Your task to perform on an android device: open app "Google News" Image 0: 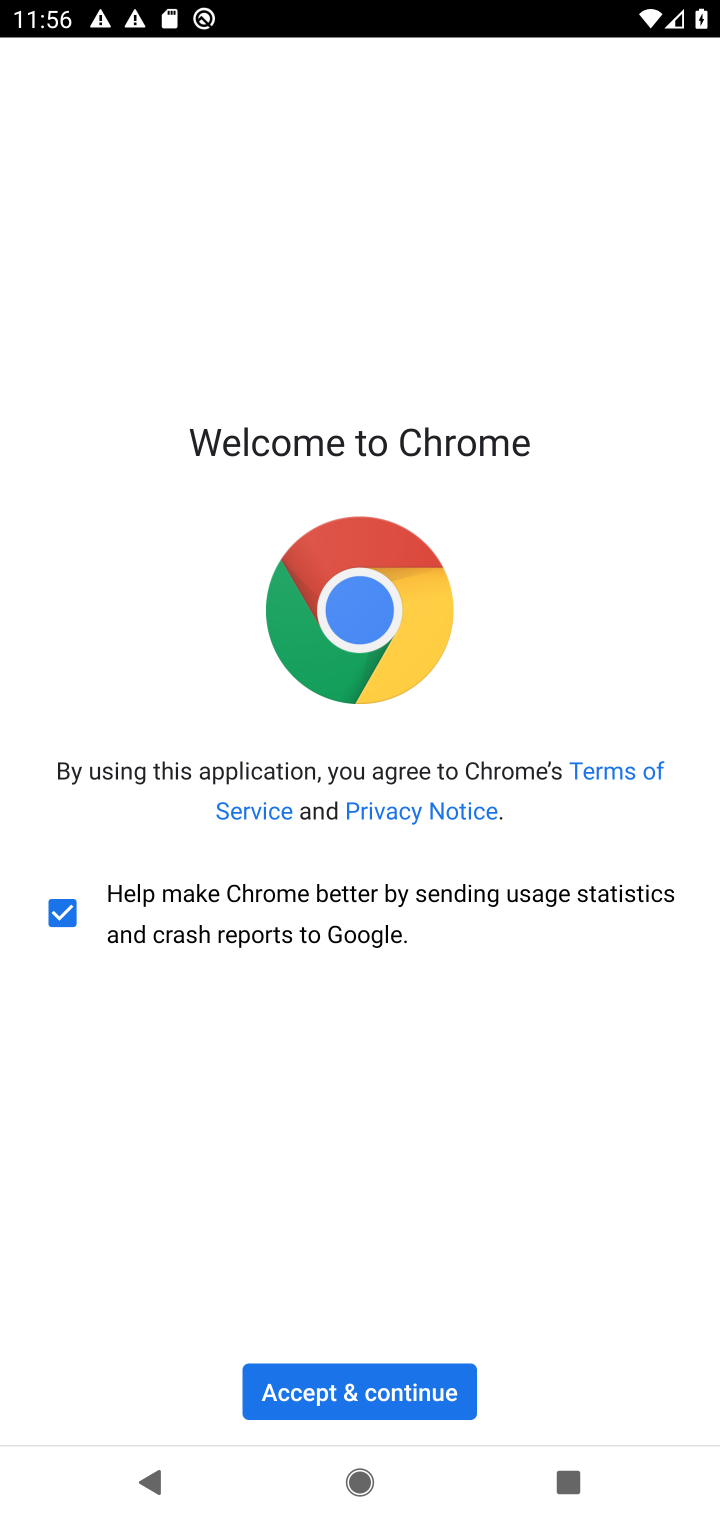
Step 0: press home button
Your task to perform on an android device: open app "Google News" Image 1: 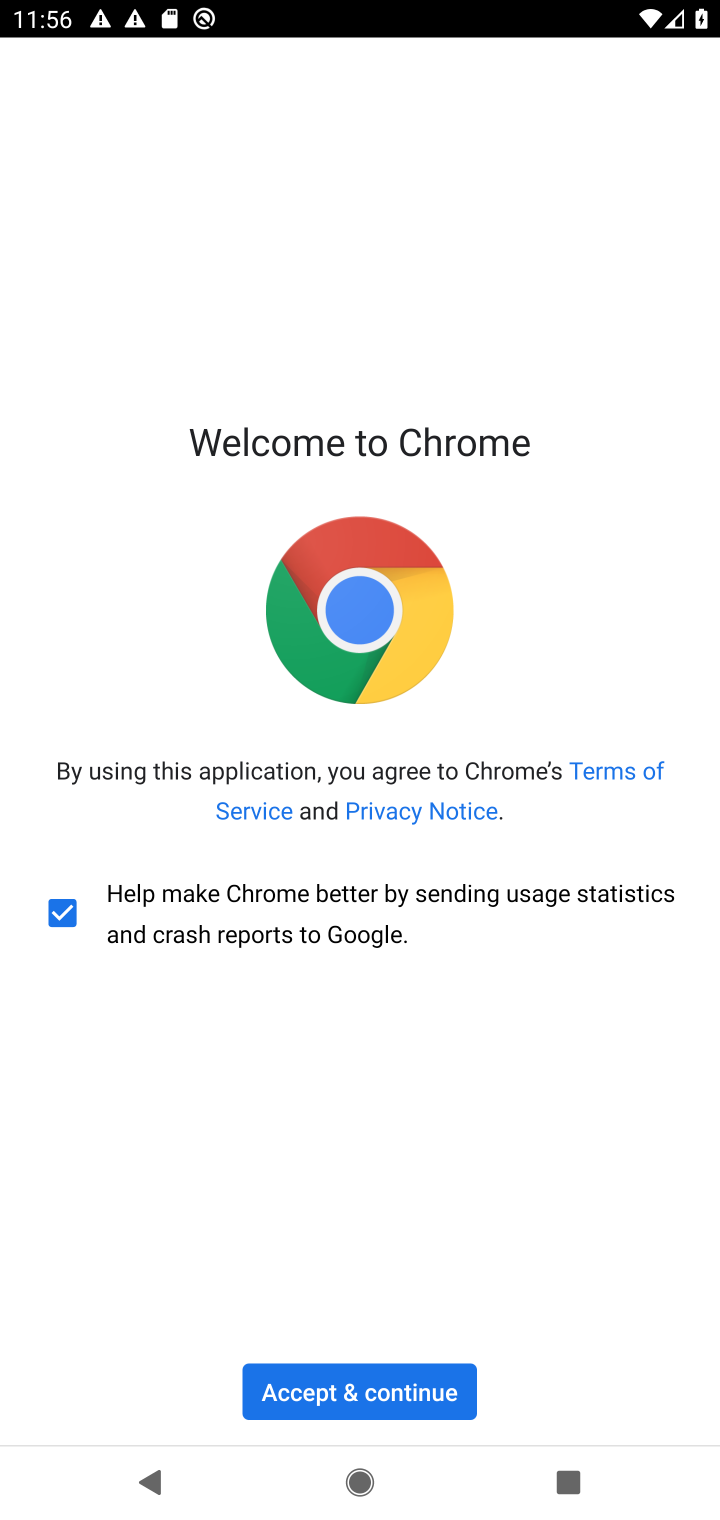
Step 1: press home button
Your task to perform on an android device: open app "Google News" Image 2: 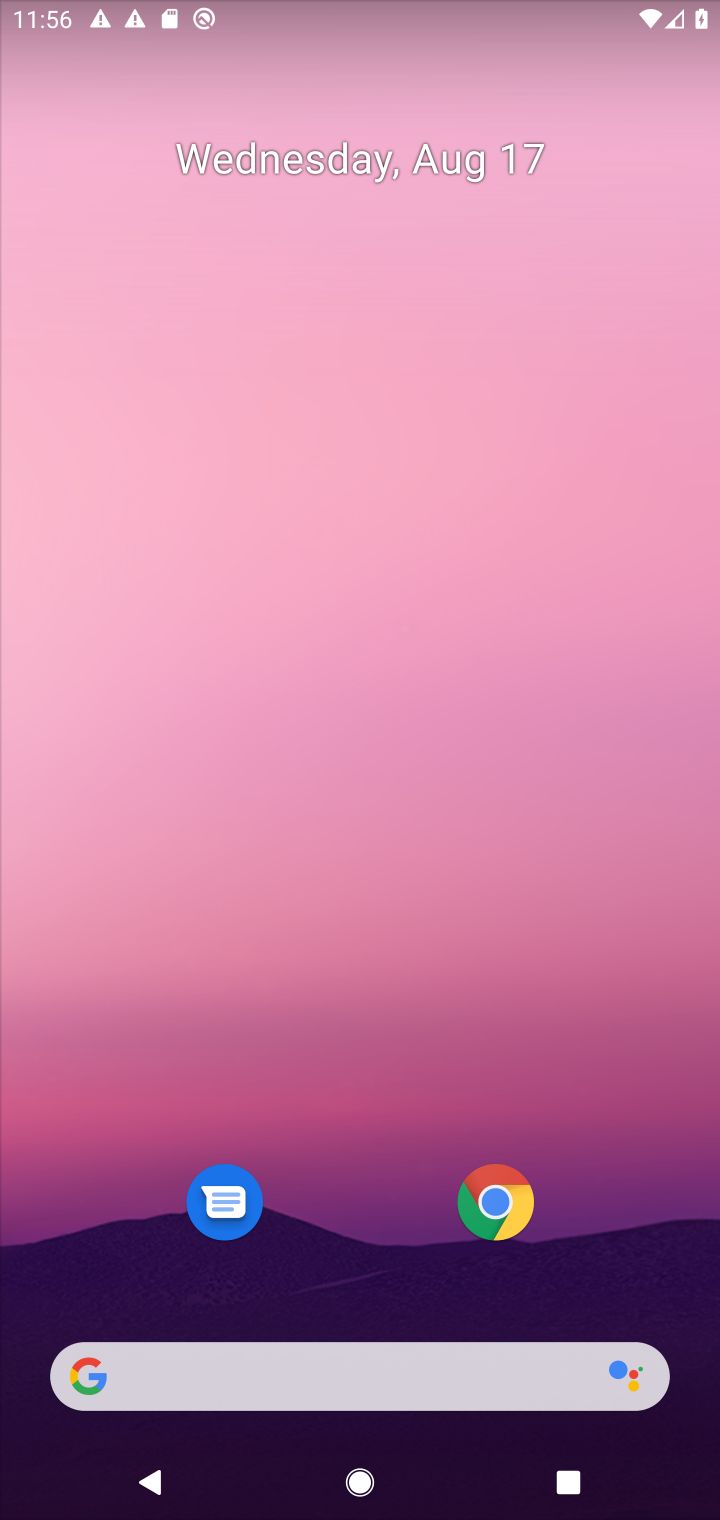
Step 2: drag from (375, 1242) to (107, 1514)
Your task to perform on an android device: open app "Google News" Image 3: 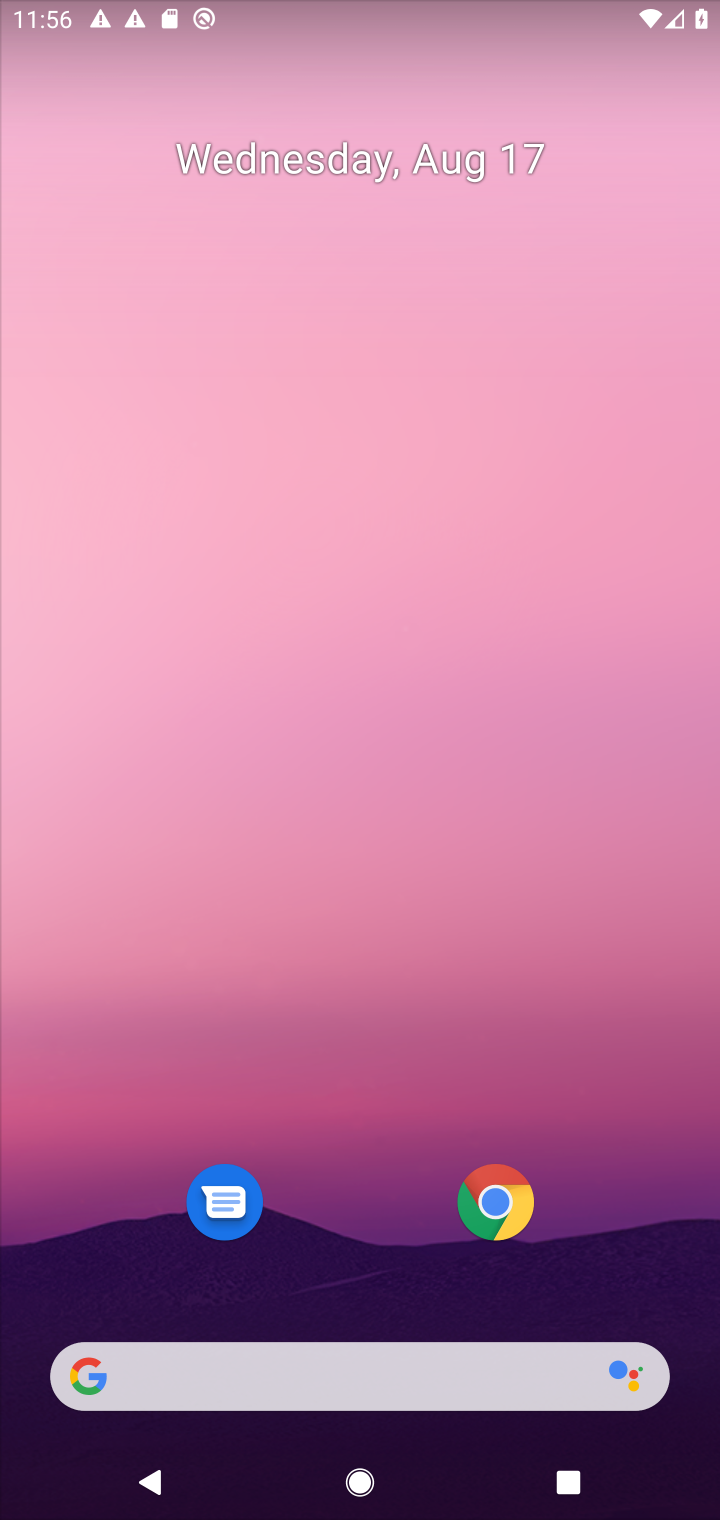
Step 3: drag from (403, 1245) to (182, 33)
Your task to perform on an android device: open app "Google News" Image 4: 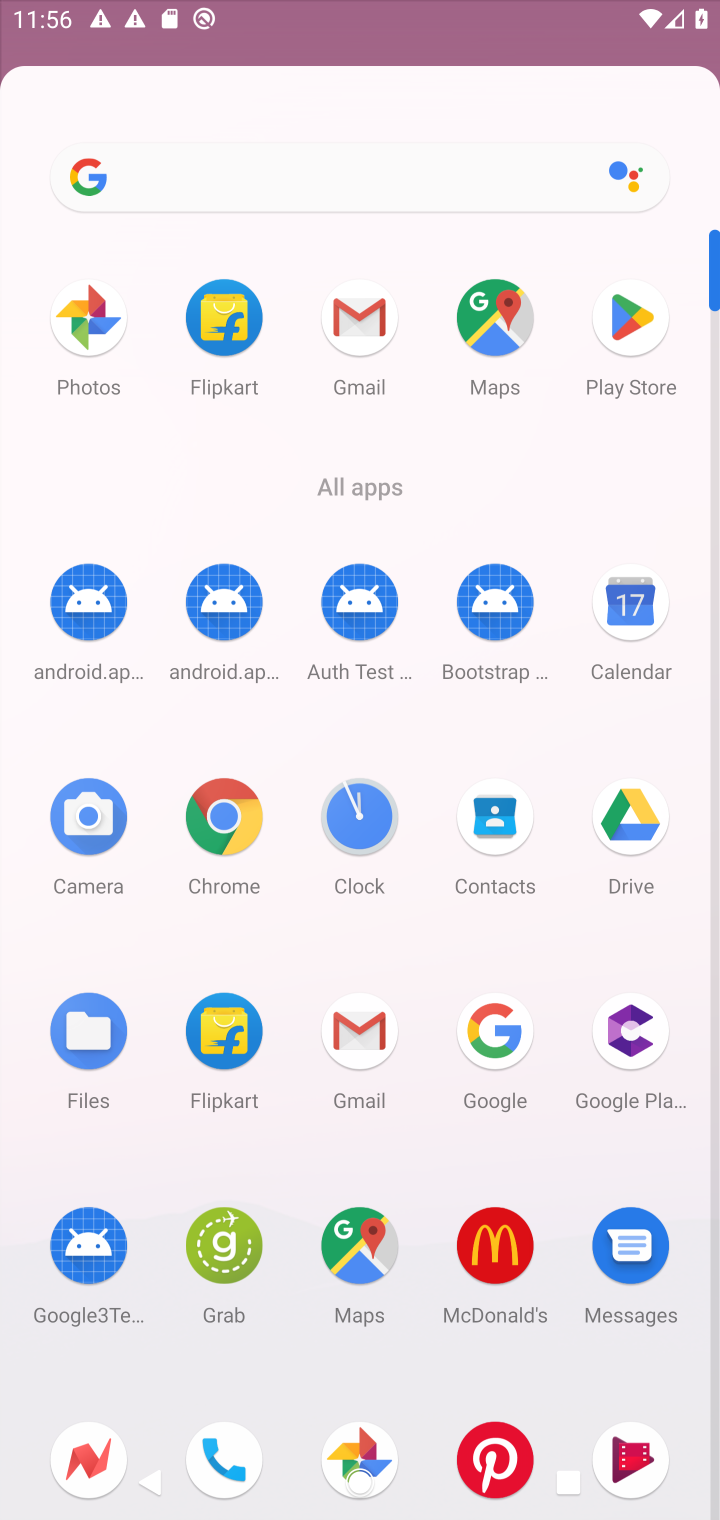
Step 4: click (568, 280)
Your task to perform on an android device: open app "Google News" Image 5: 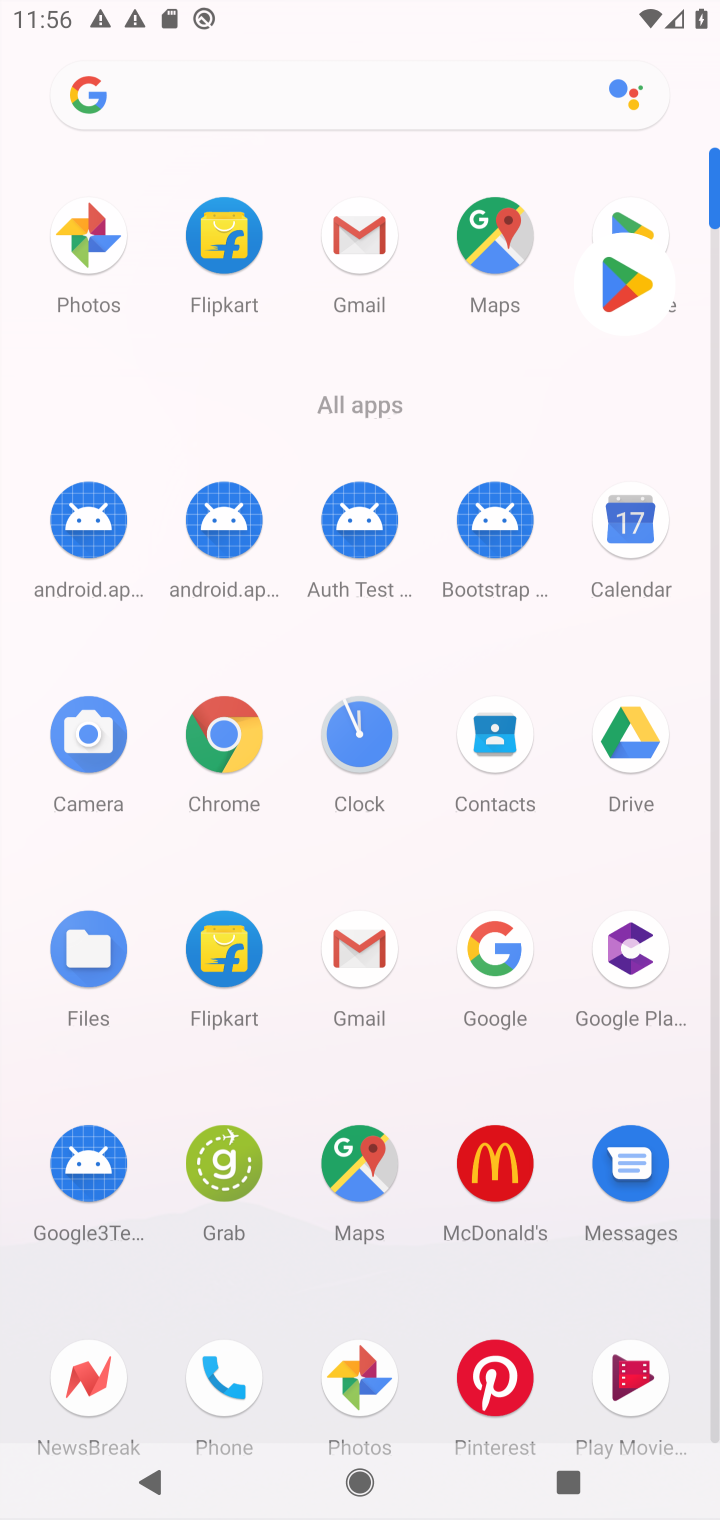
Step 5: click (586, 274)
Your task to perform on an android device: open app "Google News" Image 6: 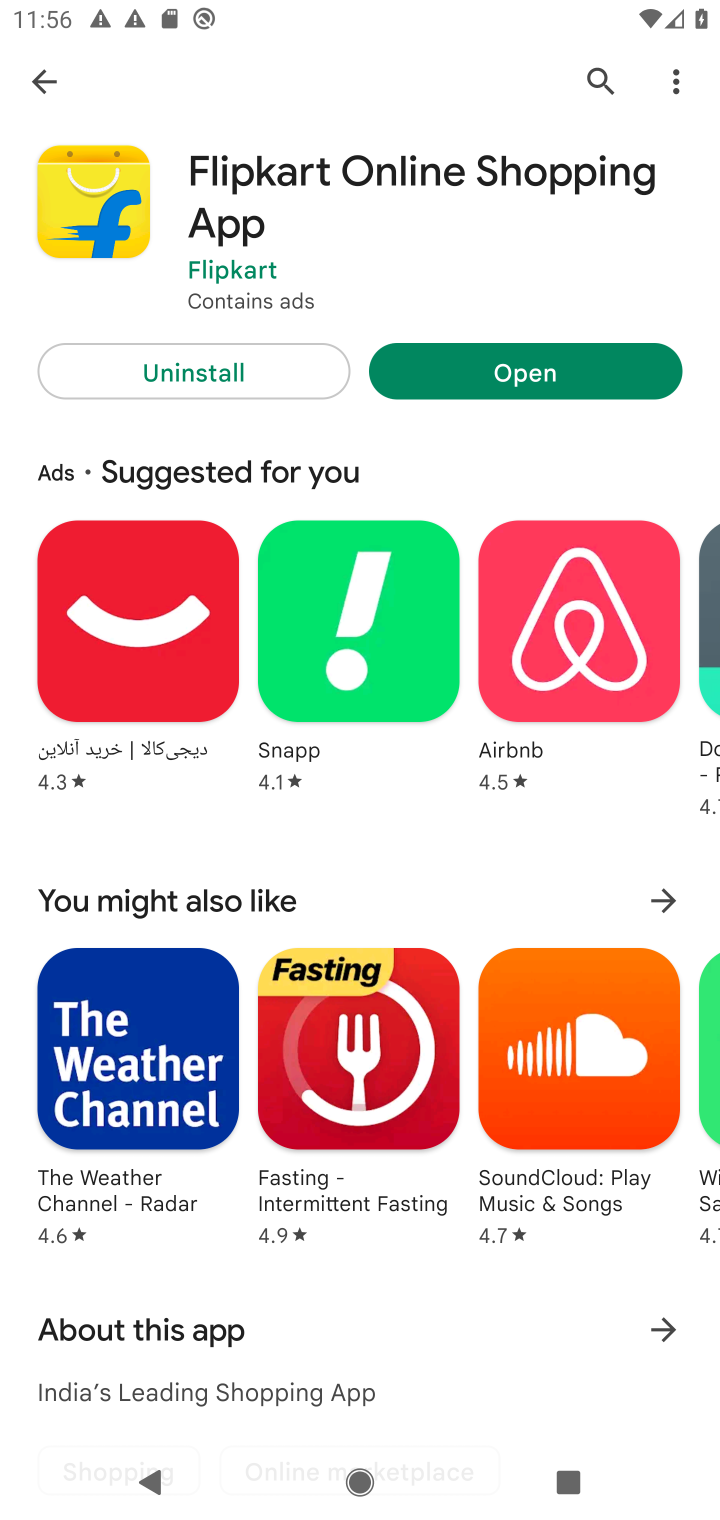
Step 6: click (54, 87)
Your task to perform on an android device: open app "Google News" Image 7: 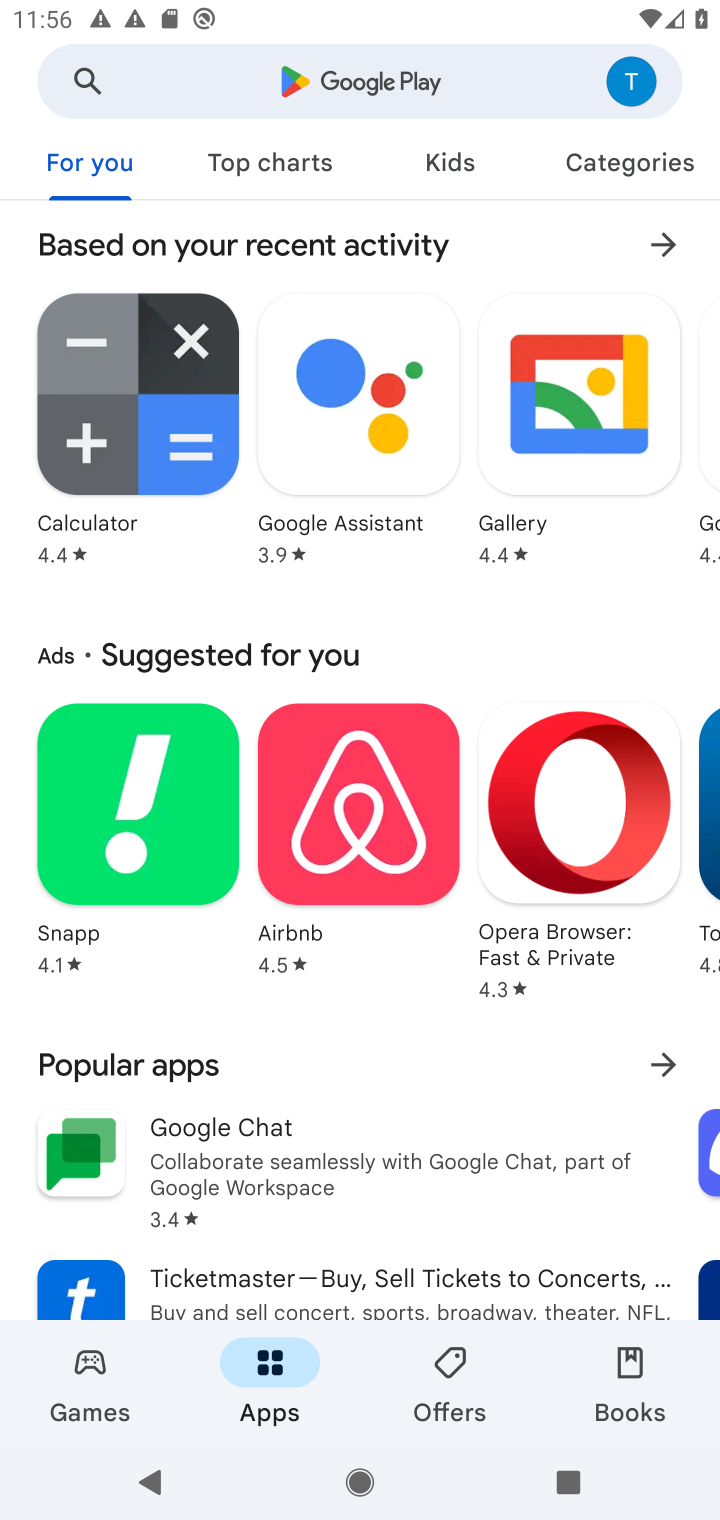
Step 7: click (117, 98)
Your task to perform on an android device: open app "Google News" Image 8: 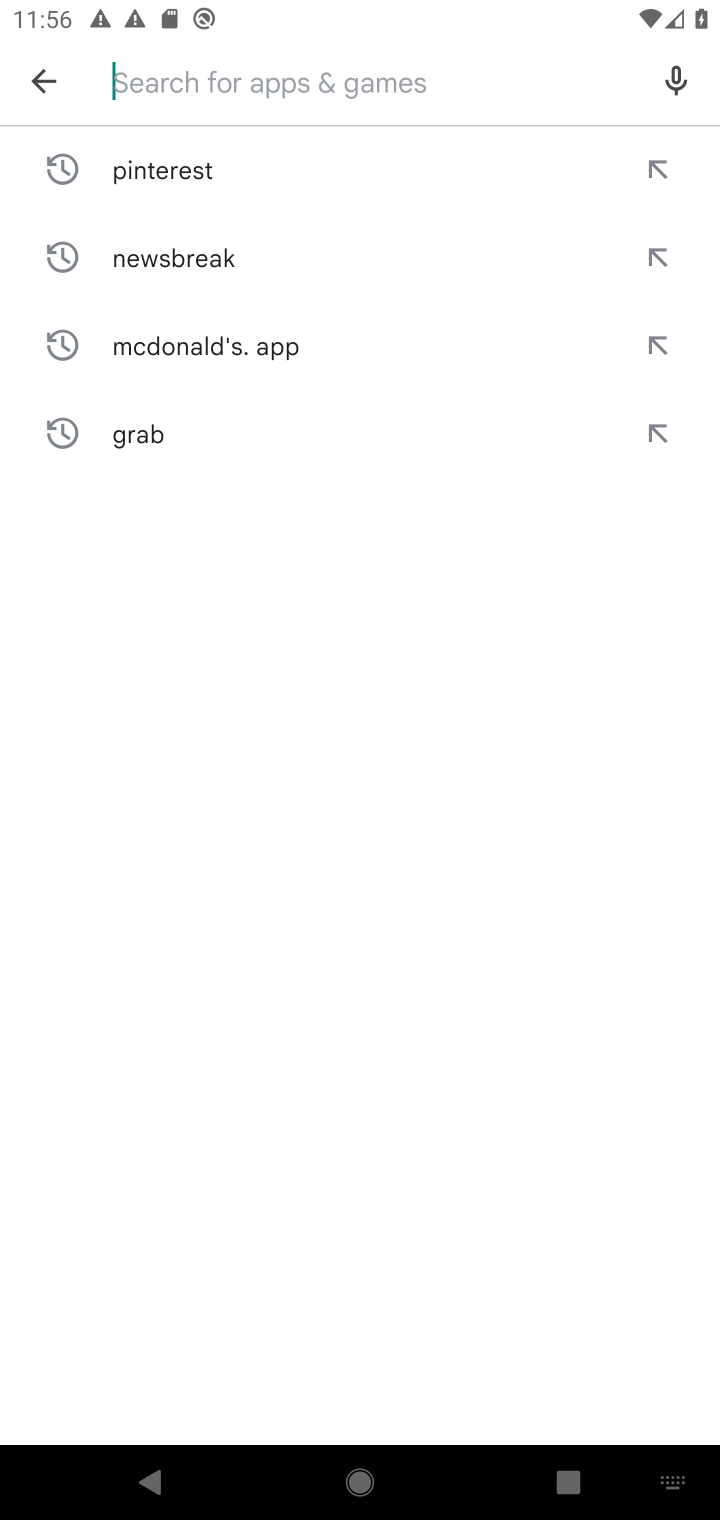
Step 8: type "Google News""
Your task to perform on an android device: open app "Google News" Image 9: 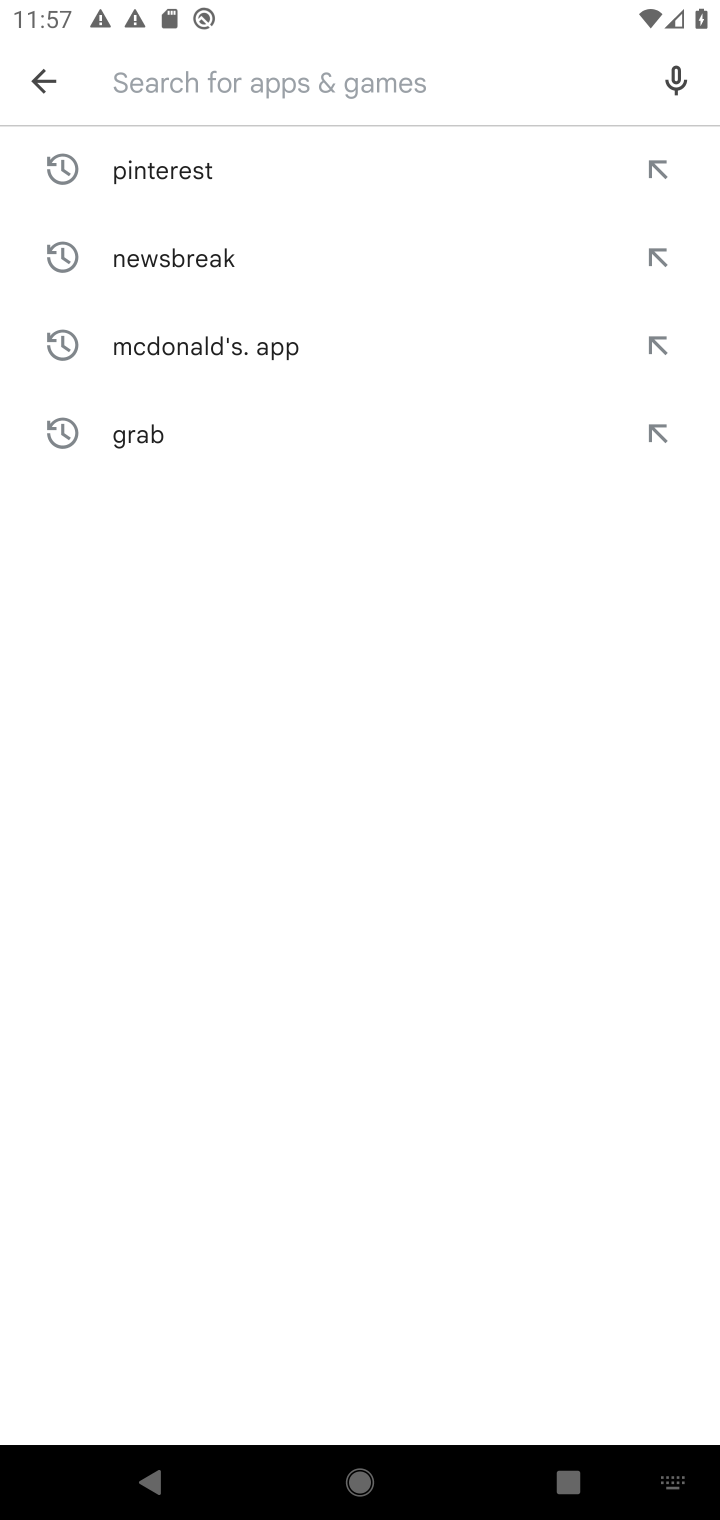
Step 9: type "Google News"
Your task to perform on an android device: open app "Google News" Image 10: 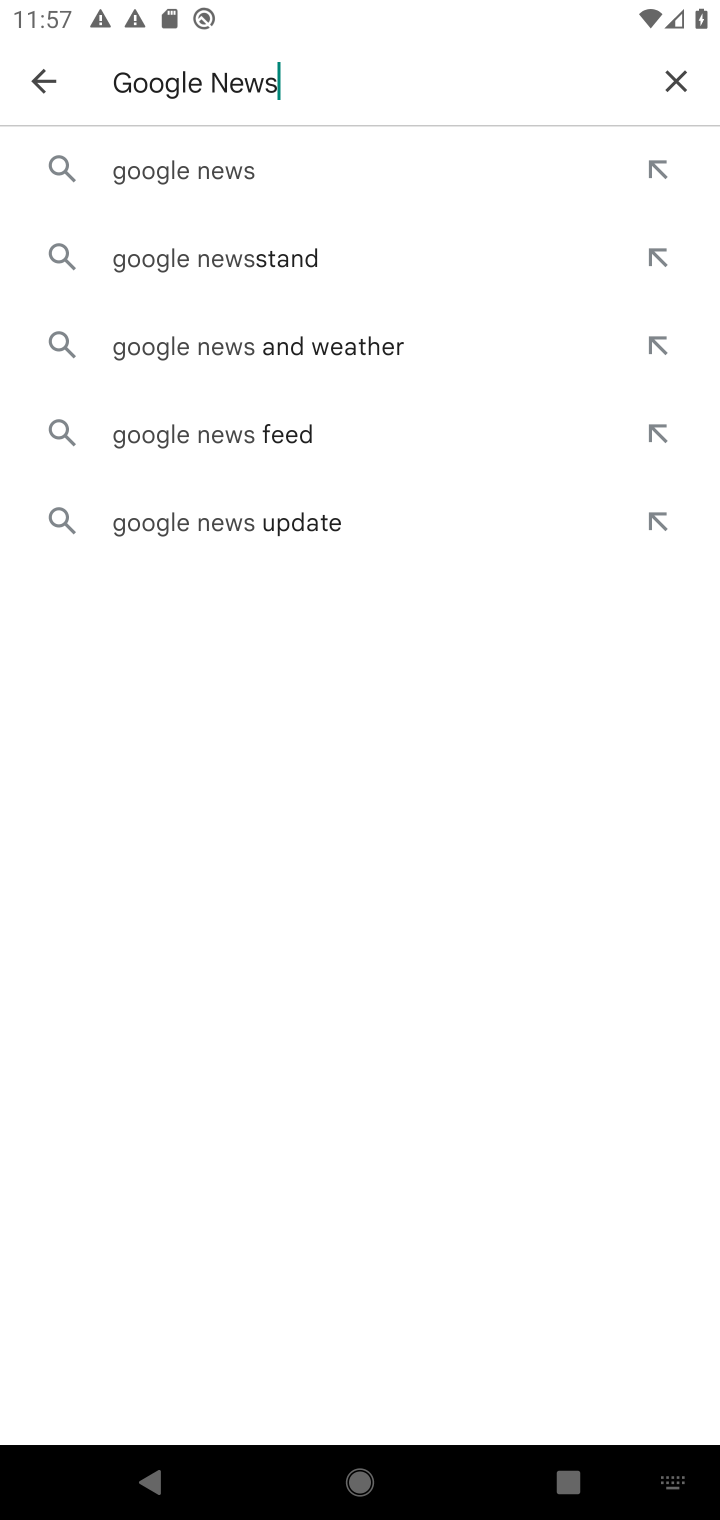
Step 10: click (225, 155)
Your task to perform on an android device: open app "Google News" Image 11: 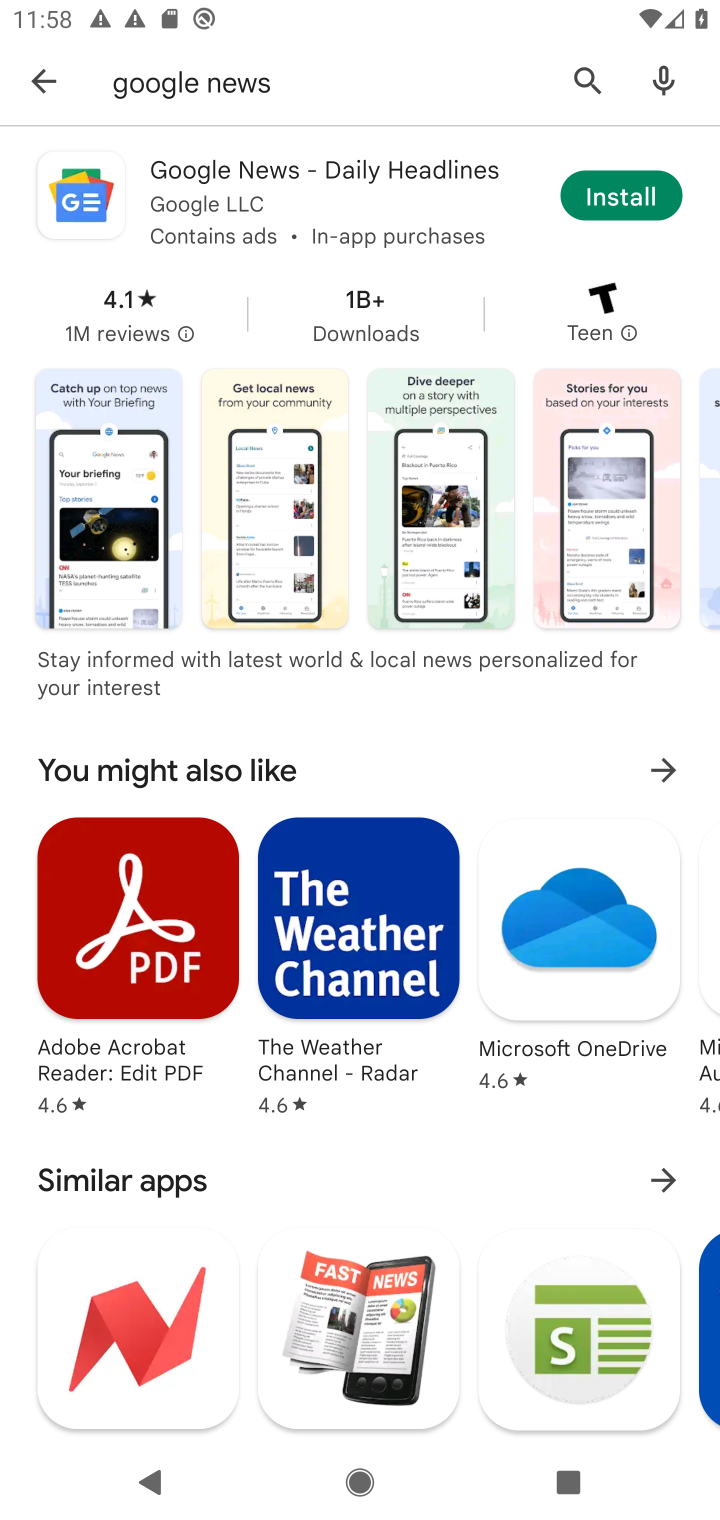
Step 11: click (611, 175)
Your task to perform on an android device: open app "Google News" Image 12: 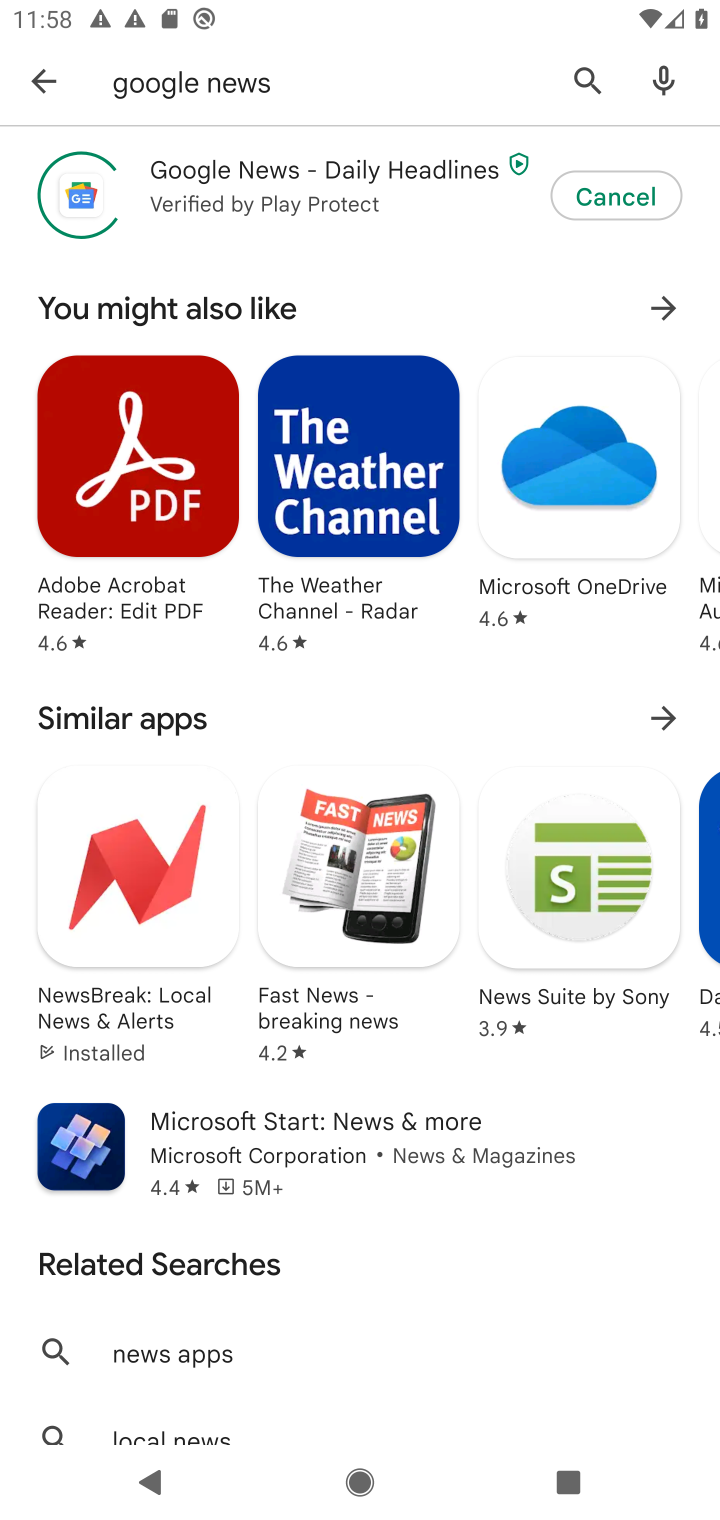
Step 12: click (611, 180)
Your task to perform on an android device: open app "Google News" Image 13: 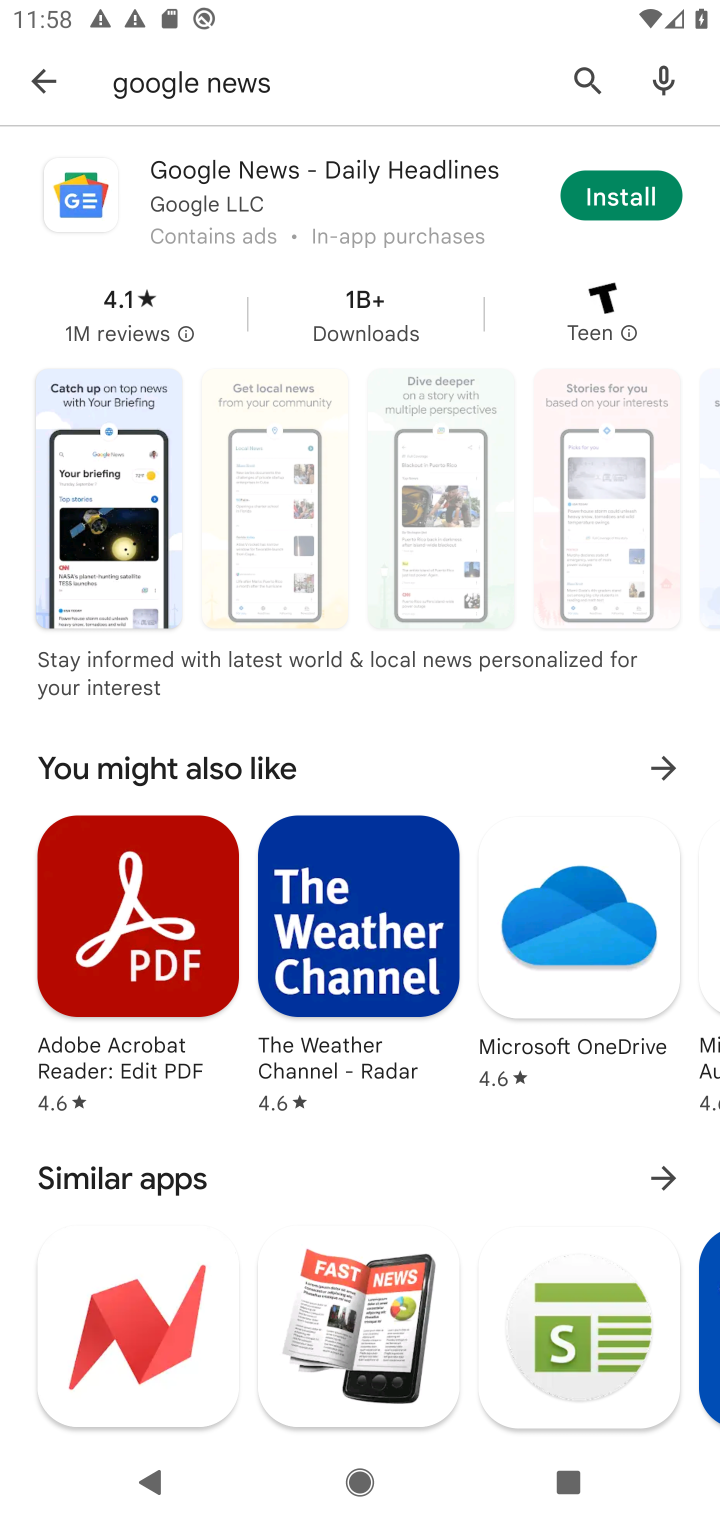
Step 13: task complete